Your task to perform on an android device: Go to Reddit.com Image 0: 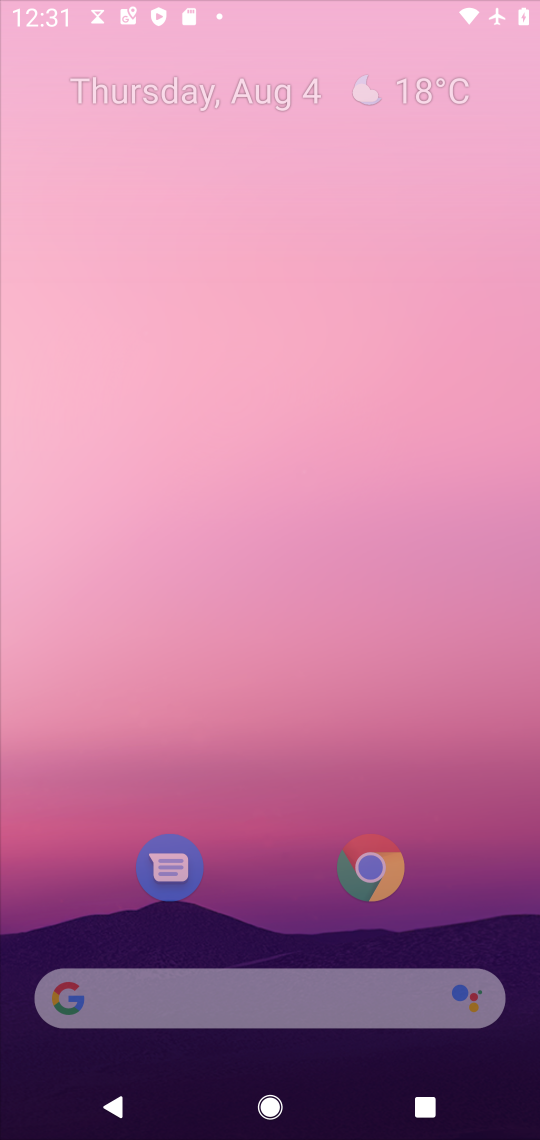
Step 0: press home button
Your task to perform on an android device: Go to Reddit.com Image 1: 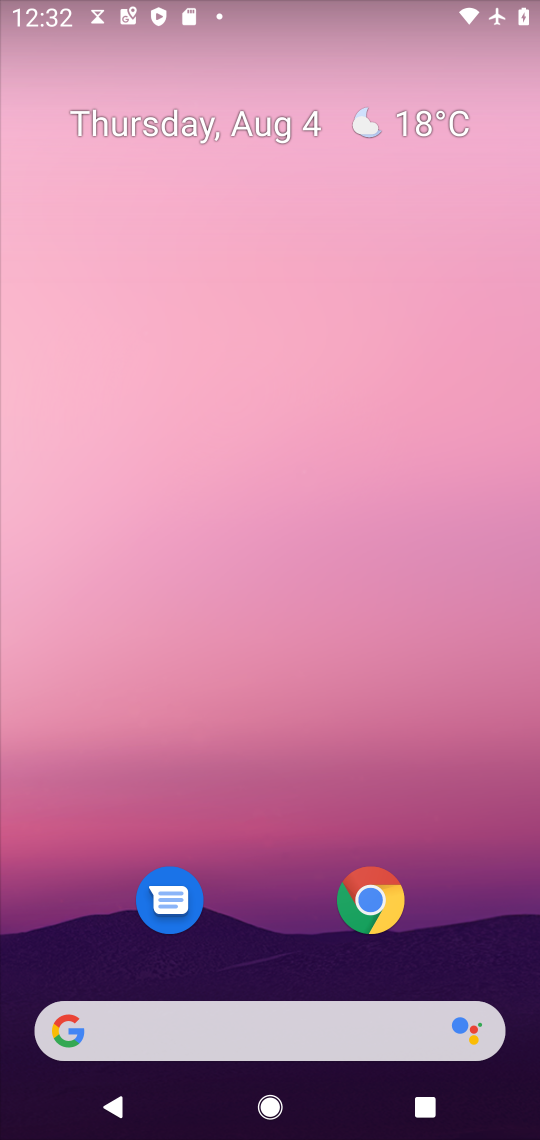
Step 1: click (53, 1025)
Your task to perform on an android device: Go to Reddit.com Image 2: 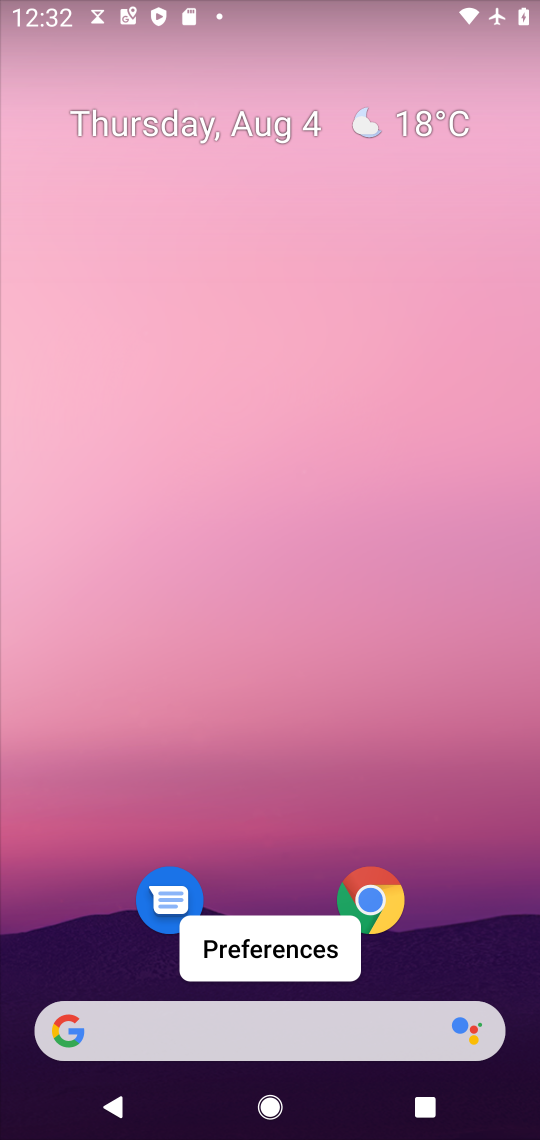
Step 2: type "Reddit.com"
Your task to perform on an android device: Go to Reddit.com Image 3: 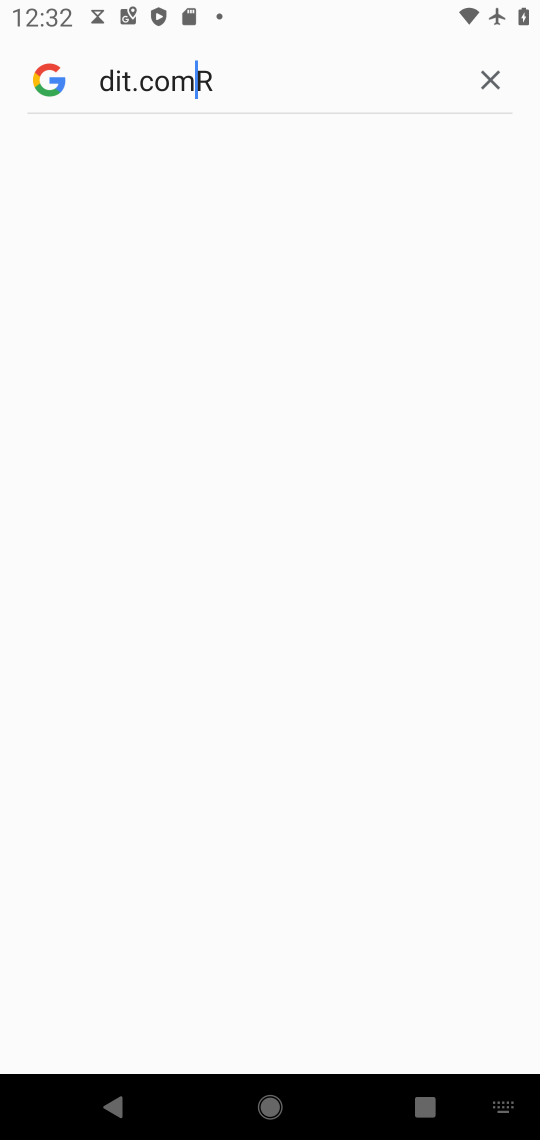
Step 3: press enter
Your task to perform on an android device: Go to Reddit.com Image 4: 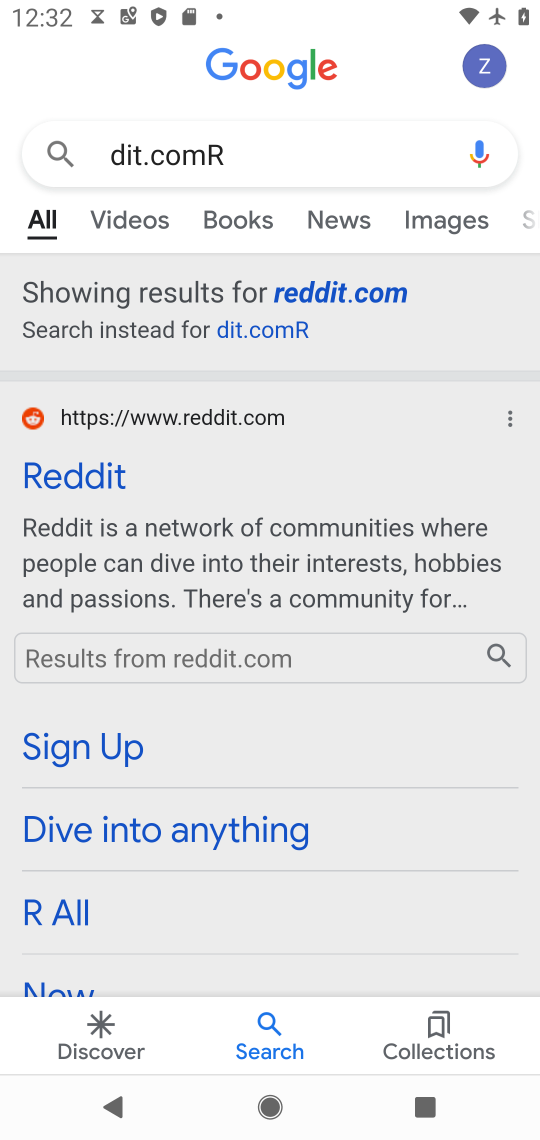
Step 4: click (62, 488)
Your task to perform on an android device: Go to Reddit.com Image 5: 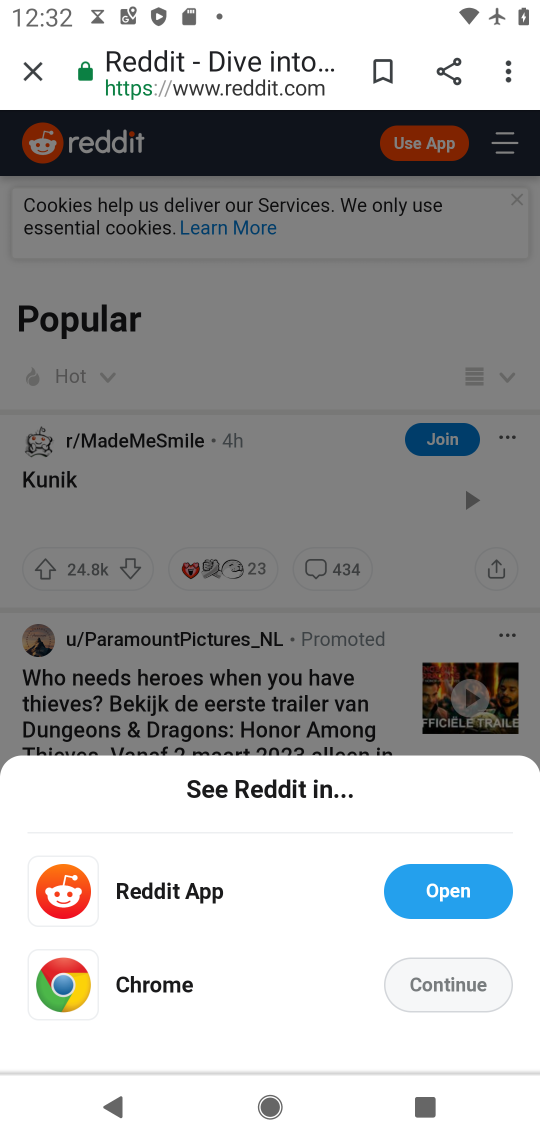
Step 5: task complete